Your task to perform on an android device: turn pop-ups on in chrome Image 0: 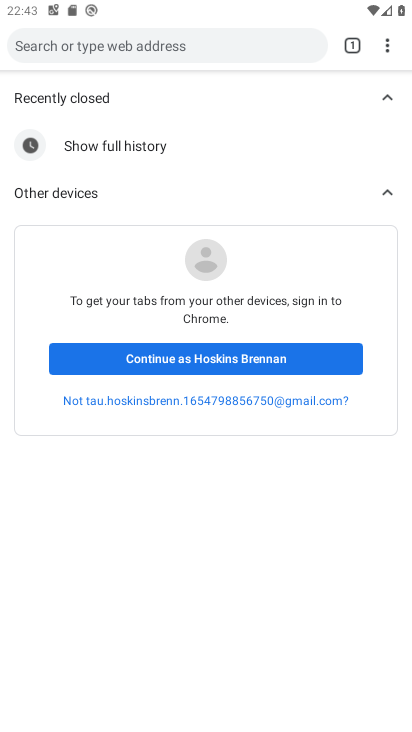
Step 0: drag from (192, 622) to (310, 9)
Your task to perform on an android device: turn pop-ups on in chrome Image 1: 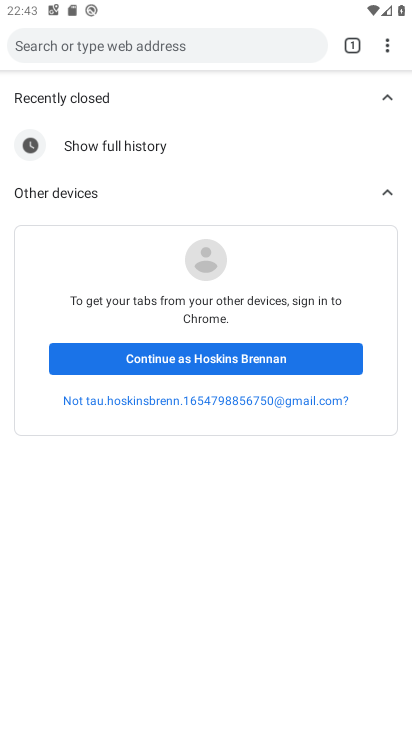
Step 1: press home button
Your task to perform on an android device: turn pop-ups on in chrome Image 2: 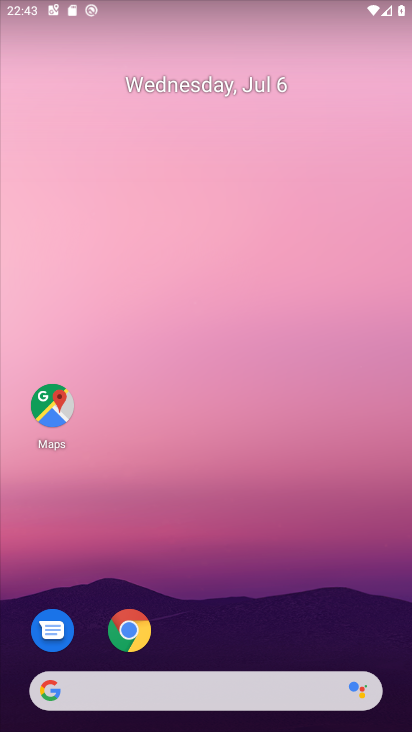
Step 2: drag from (233, 598) to (280, 104)
Your task to perform on an android device: turn pop-ups on in chrome Image 3: 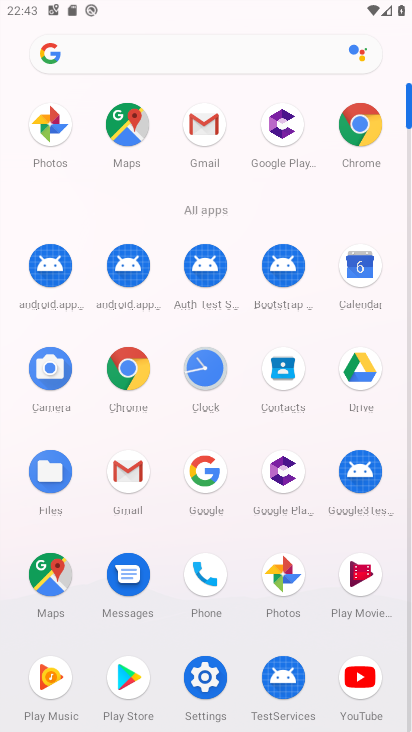
Step 3: click (363, 124)
Your task to perform on an android device: turn pop-ups on in chrome Image 4: 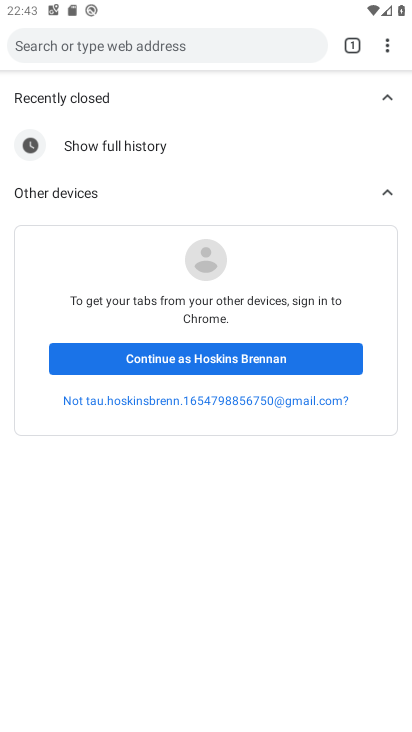
Step 4: click (386, 53)
Your task to perform on an android device: turn pop-ups on in chrome Image 5: 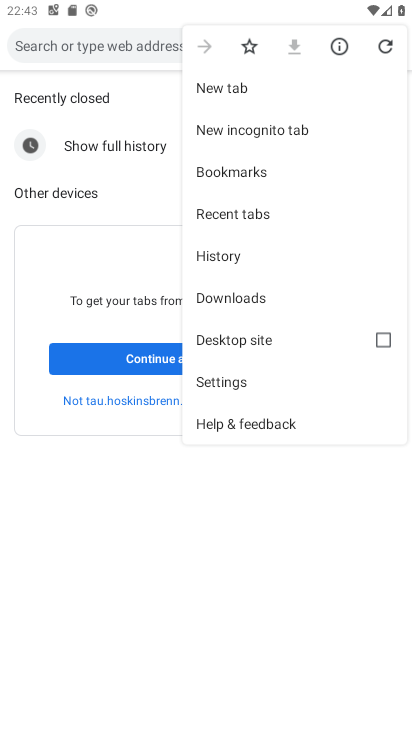
Step 5: click (256, 378)
Your task to perform on an android device: turn pop-ups on in chrome Image 6: 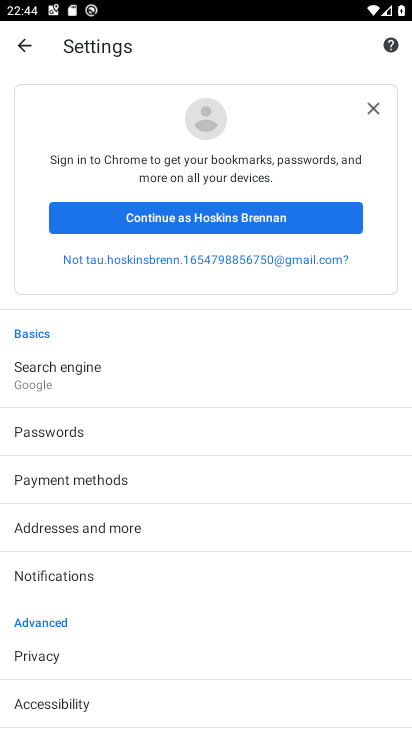
Step 6: drag from (173, 509) to (280, 221)
Your task to perform on an android device: turn pop-ups on in chrome Image 7: 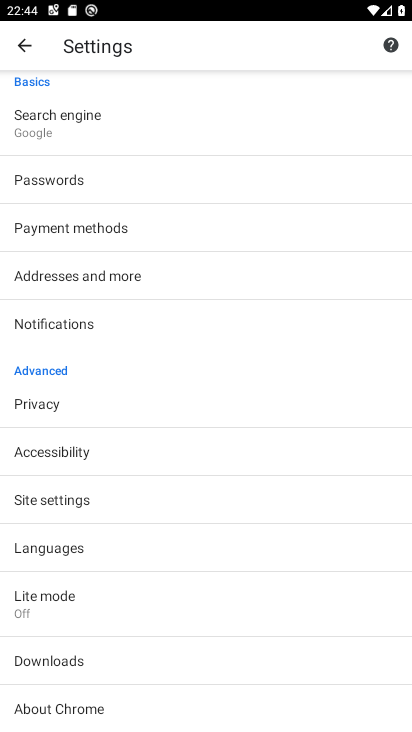
Step 7: click (90, 502)
Your task to perform on an android device: turn pop-ups on in chrome Image 8: 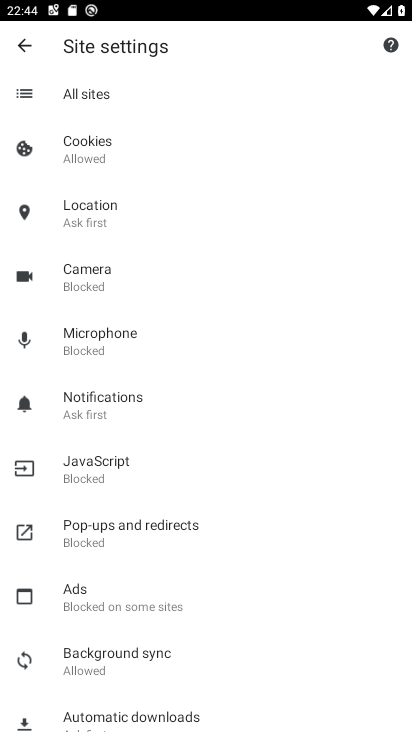
Step 8: click (97, 532)
Your task to perform on an android device: turn pop-ups on in chrome Image 9: 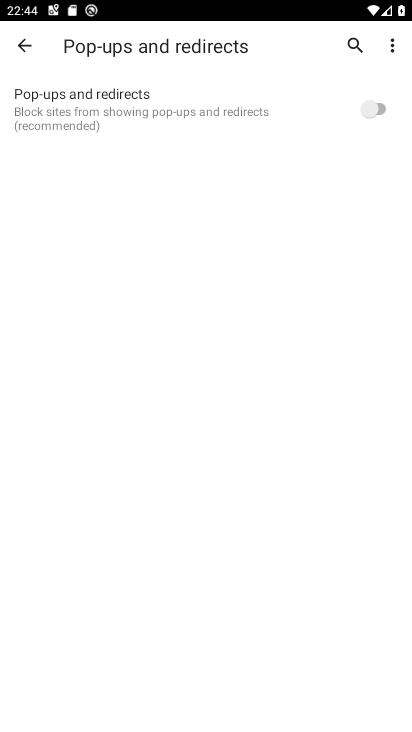
Step 9: drag from (196, 570) to (260, 339)
Your task to perform on an android device: turn pop-ups on in chrome Image 10: 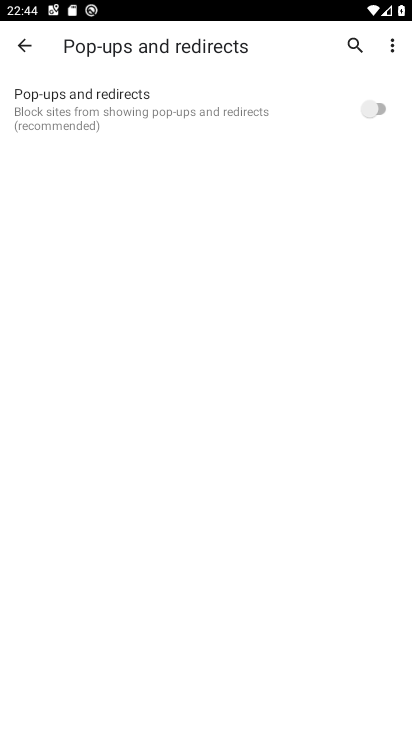
Step 10: click (354, 86)
Your task to perform on an android device: turn pop-ups on in chrome Image 11: 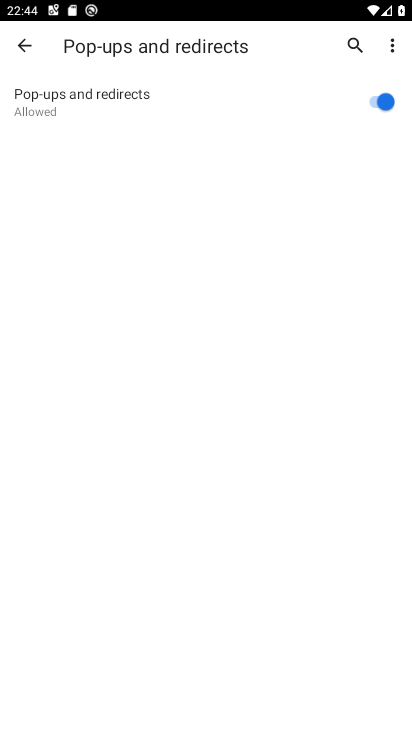
Step 11: task complete